Your task to perform on an android device: toggle wifi Image 0: 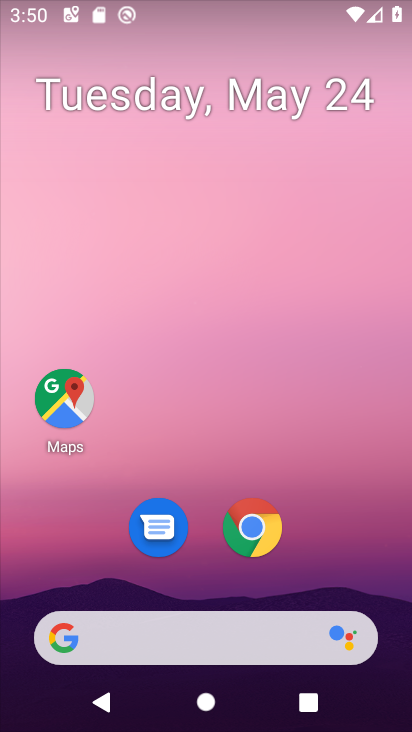
Step 0: drag from (351, 271) to (388, 35)
Your task to perform on an android device: toggle wifi Image 1: 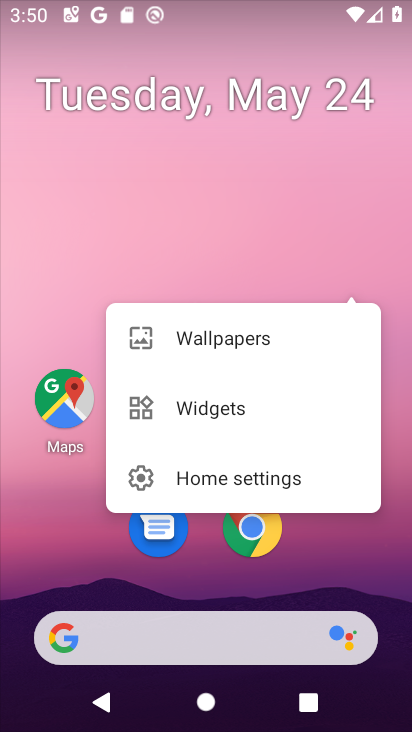
Step 1: drag from (364, 568) to (326, 2)
Your task to perform on an android device: toggle wifi Image 2: 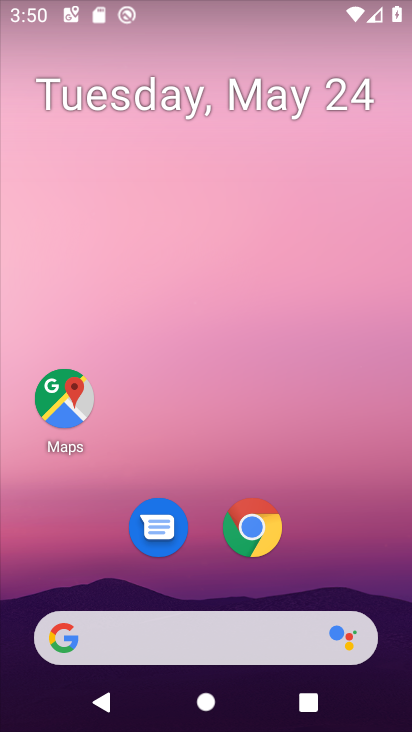
Step 2: drag from (337, 542) to (293, 0)
Your task to perform on an android device: toggle wifi Image 3: 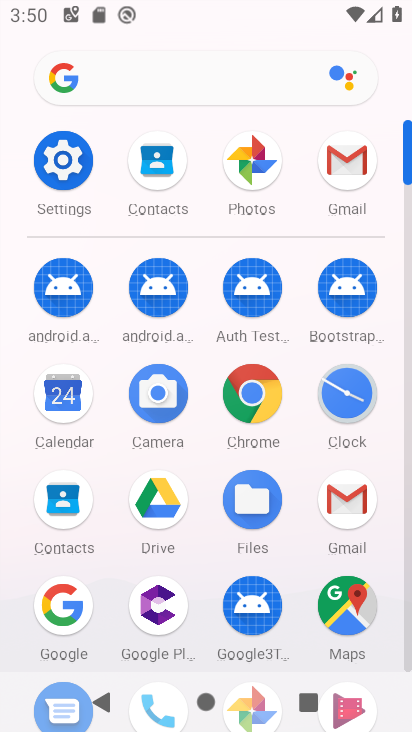
Step 3: click (63, 171)
Your task to perform on an android device: toggle wifi Image 4: 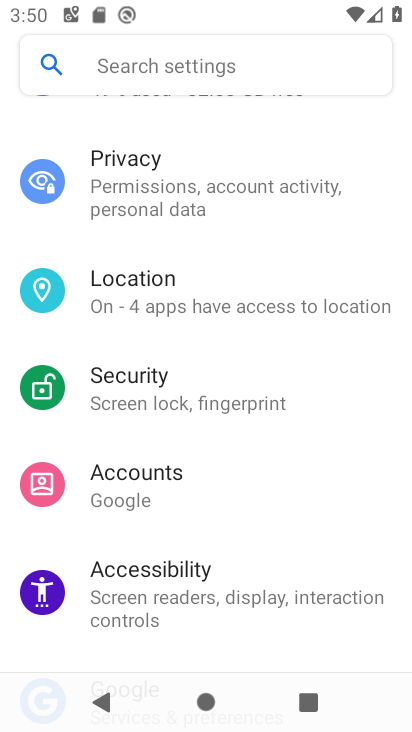
Step 4: drag from (353, 145) to (362, 576)
Your task to perform on an android device: toggle wifi Image 5: 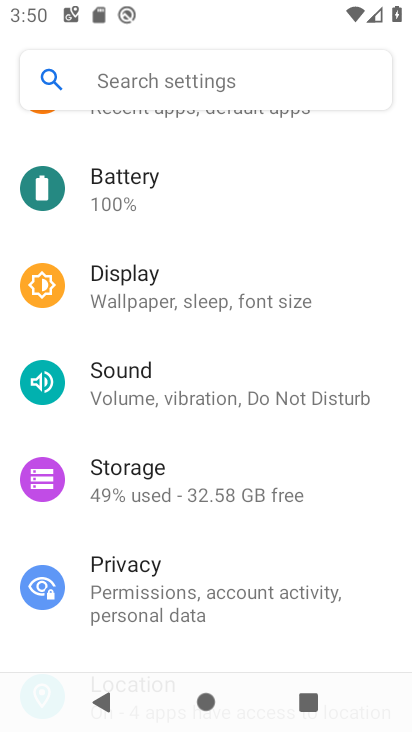
Step 5: drag from (271, 171) to (305, 566)
Your task to perform on an android device: toggle wifi Image 6: 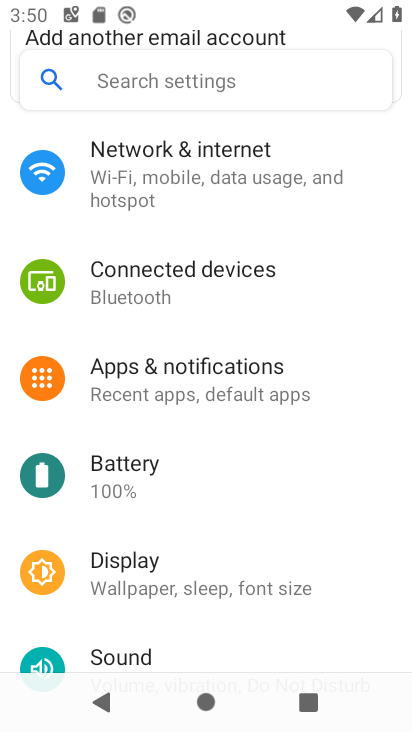
Step 6: click (124, 174)
Your task to perform on an android device: toggle wifi Image 7: 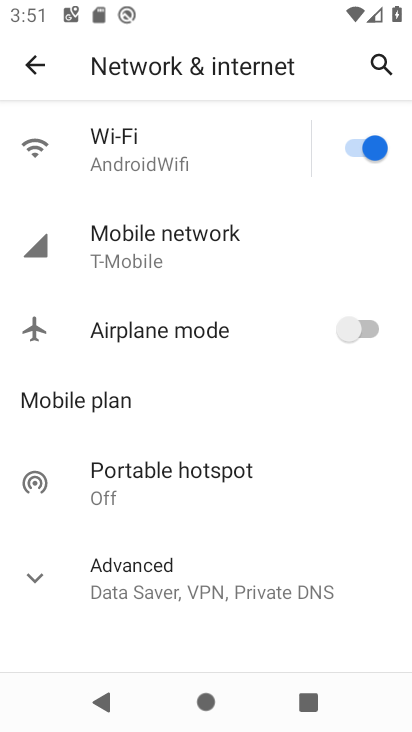
Step 7: click (373, 143)
Your task to perform on an android device: toggle wifi Image 8: 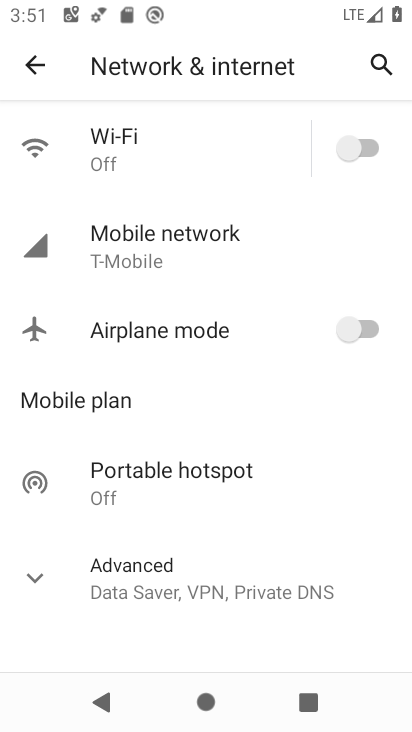
Step 8: task complete